Your task to perform on an android device: show emergency info Image 0: 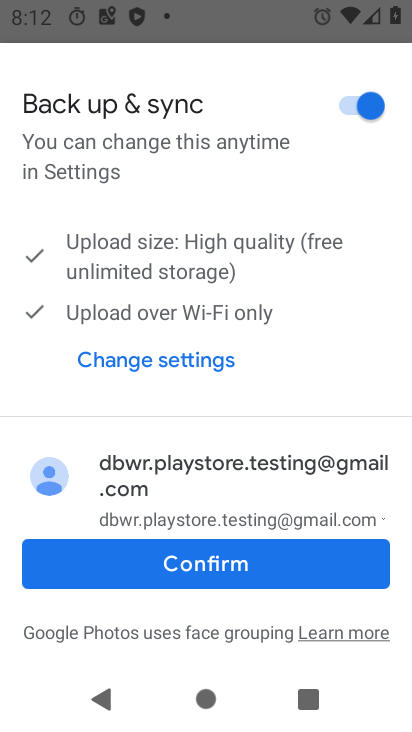
Step 0: press back button
Your task to perform on an android device: show emergency info Image 1: 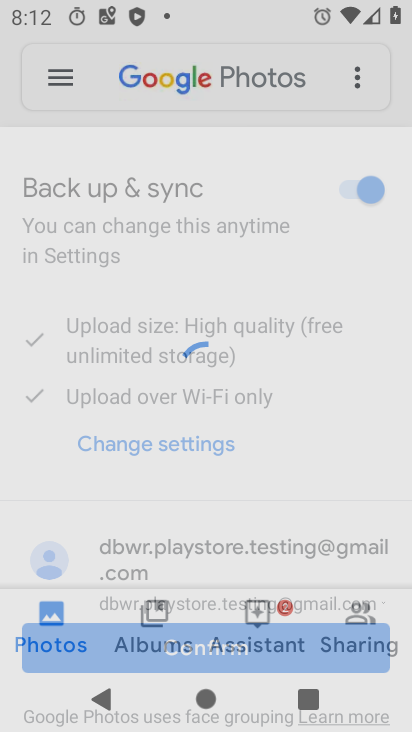
Step 1: press home button
Your task to perform on an android device: show emergency info Image 2: 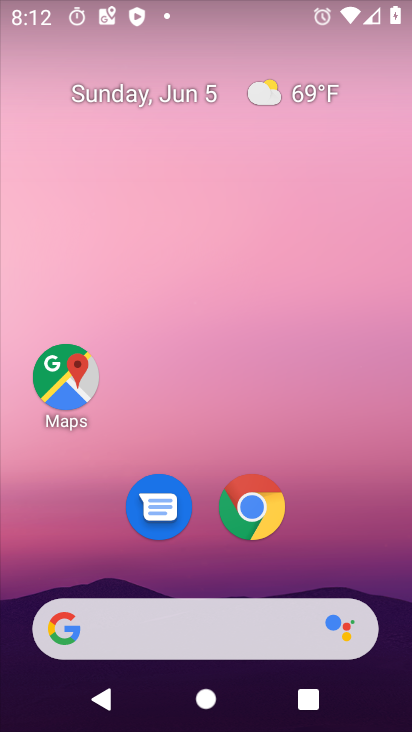
Step 2: drag from (334, 554) to (288, 35)
Your task to perform on an android device: show emergency info Image 3: 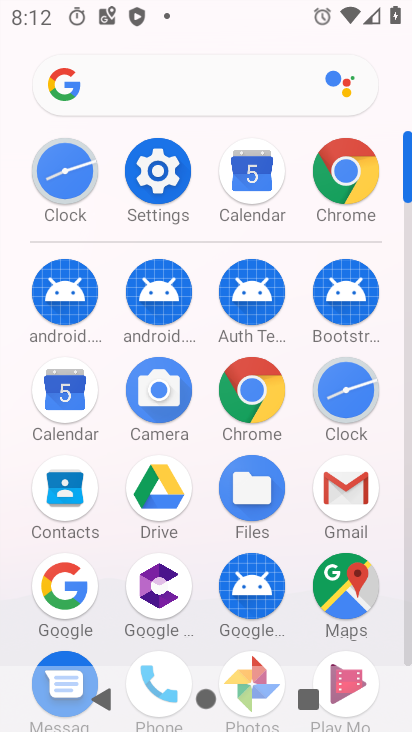
Step 3: click (157, 170)
Your task to perform on an android device: show emergency info Image 4: 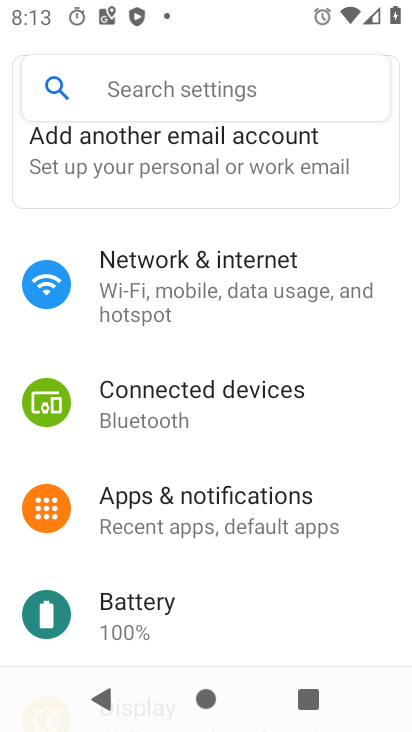
Step 4: drag from (242, 594) to (242, 162)
Your task to perform on an android device: show emergency info Image 5: 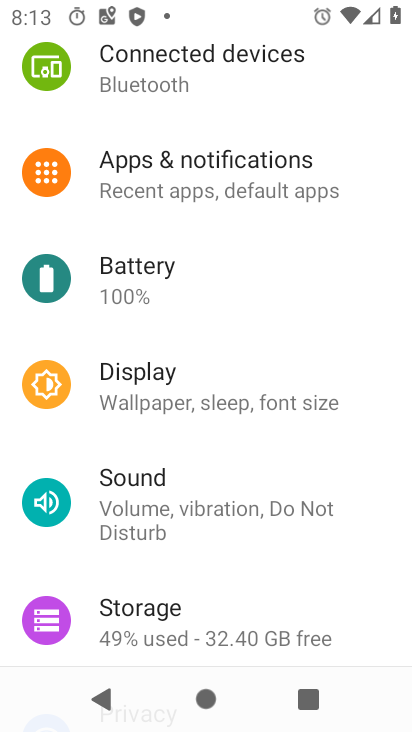
Step 5: drag from (236, 530) to (231, 115)
Your task to perform on an android device: show emergency info Image 6: 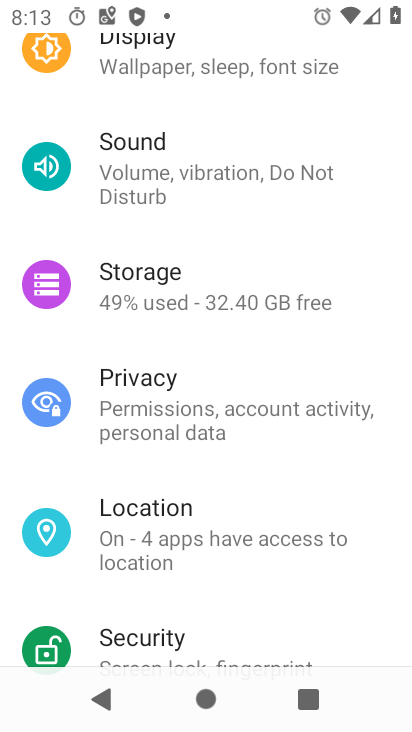
Step 6: drag from (238, 597) to (237, 97)
Your task to perform on an android device: show emergency info Image 7: 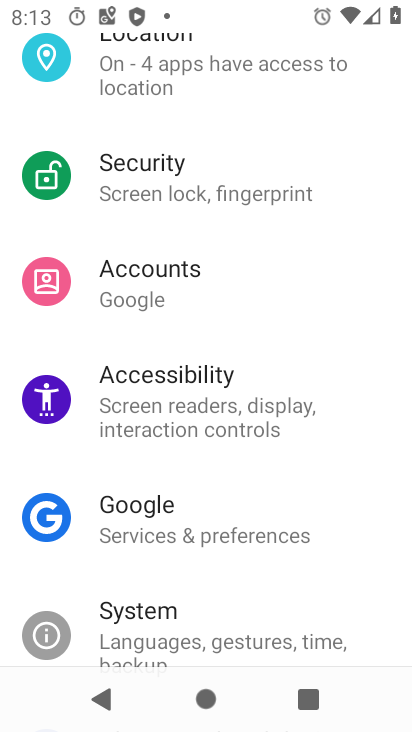
Step 7: drag from (225, 622) to (249, 168)
Your task to perform on an android device: show emergency info Image 8: 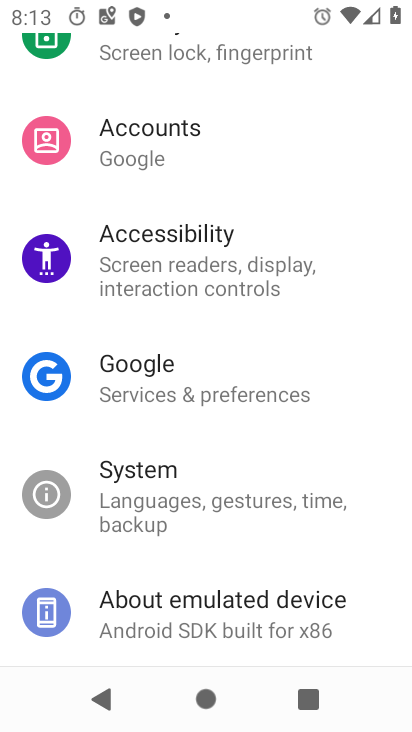
Step 8: click (183, 589)
Your task to perform on an android device: show emergency info Image 9: 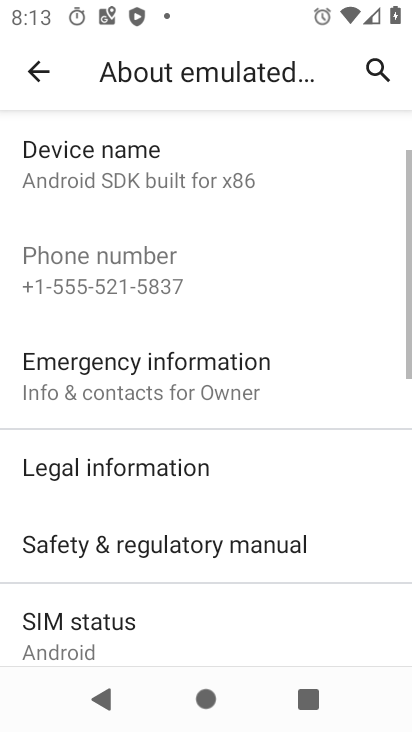
Step 9: click (185, 380)
Your task to perform on an android device: show emergency info Image 10: 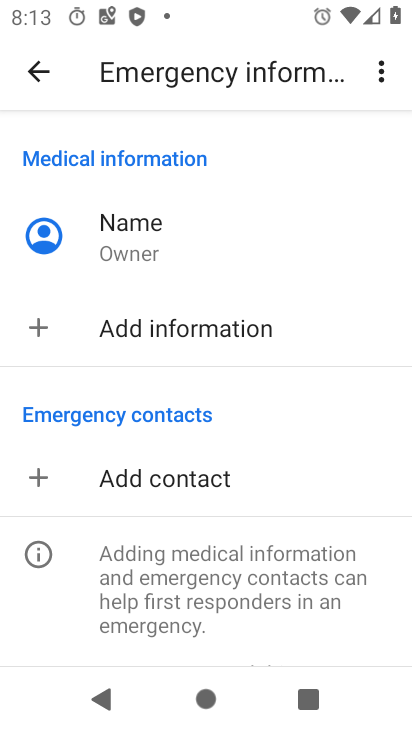
Step 10: task complete